Your task to perform on an android device: search for starred emails in the gmail app Image 0: 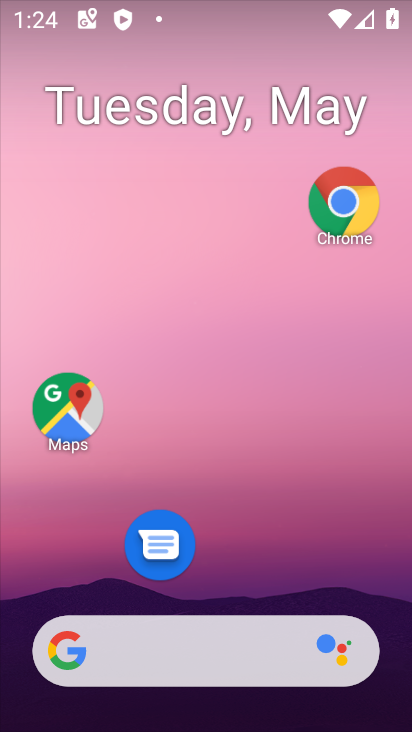
Step 0: drag from (230, 587) to (156, 190)
Your task to perform on an android device: search for starred emails in the gmail app Image 1: 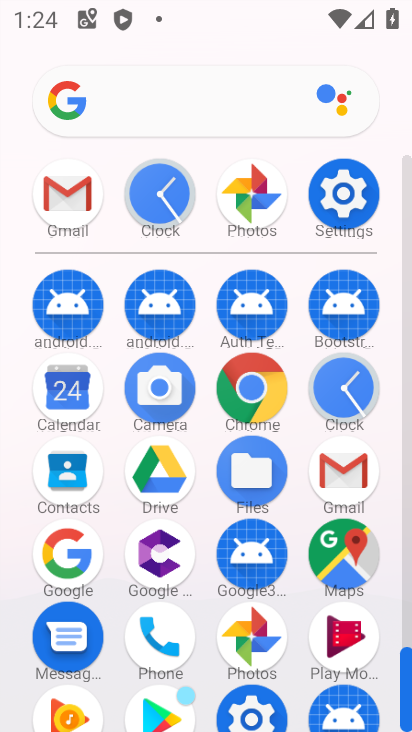
Step 1: click (44, 194)
Your task to perform on an android device: search for starred emails in the gmail app Image 2: 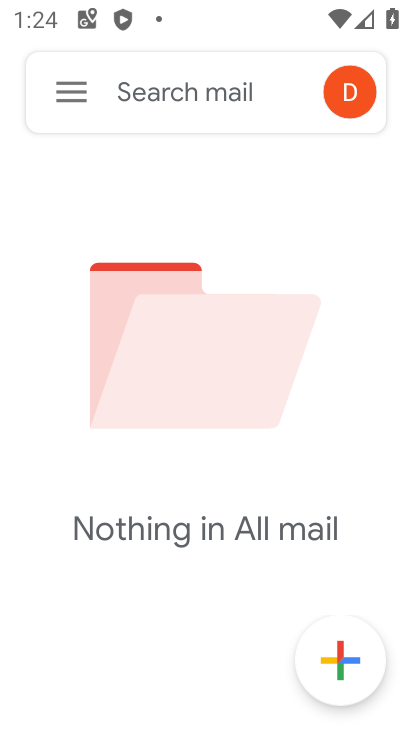
Step 2: click (84, 79)
Your task to perform on an android device: search for starred emails in the gmail app Image 3: 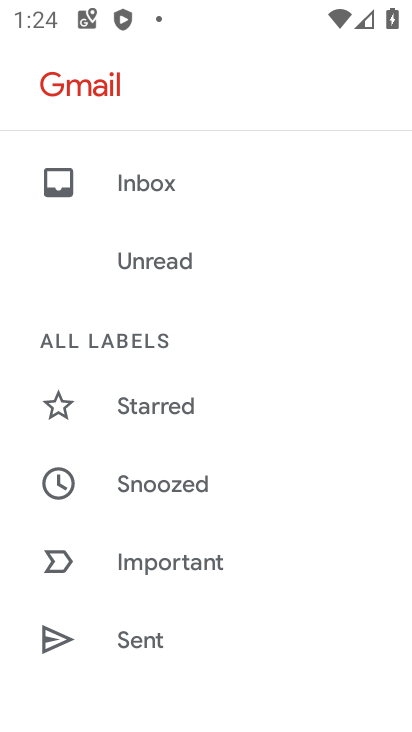
Step 3: click (170, 415)
Your task to perform on an android device: search for starred emails in the gmail app Image 4: 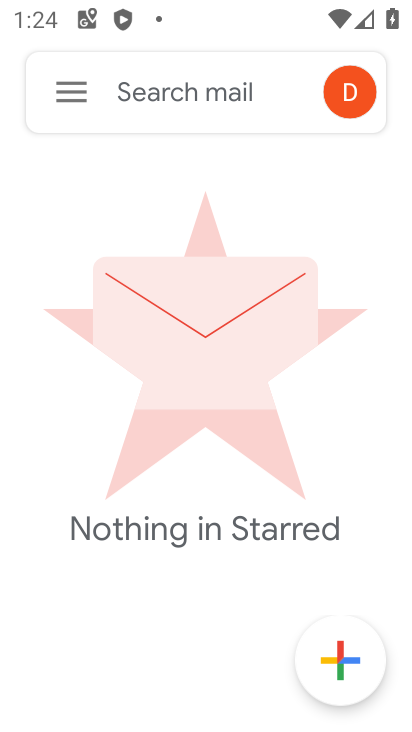
Step 4: task complete